Your task to perform on an android device: turn on translation in the chrome app Image 0: 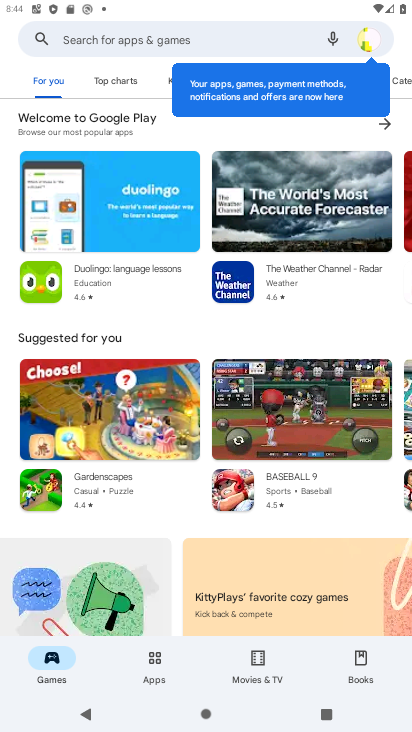
Step 0: press home button
Your task to perform on an android device: turn on translation in the chrome app Image 1: 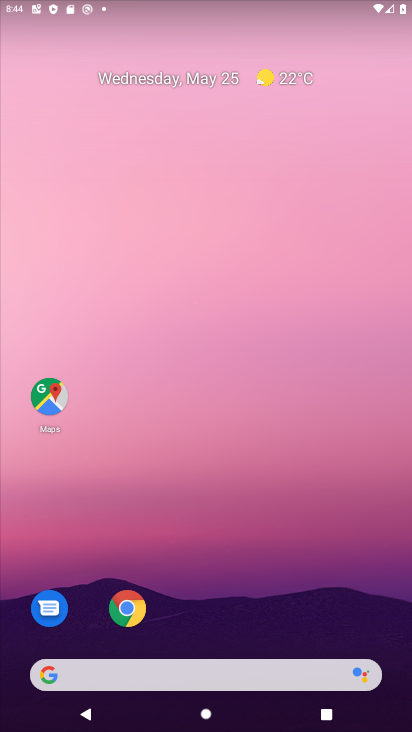
Step 1: click (125, 607)
Your task to perform on an android device: turn on translation in the chrome app Image 2: 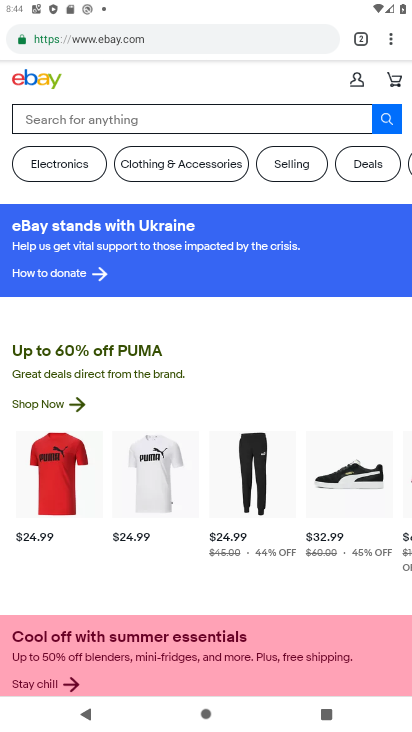
Step 2: click (390, 38)
Your task to perform on an android device: turn on translation in the chrome app Image 3: 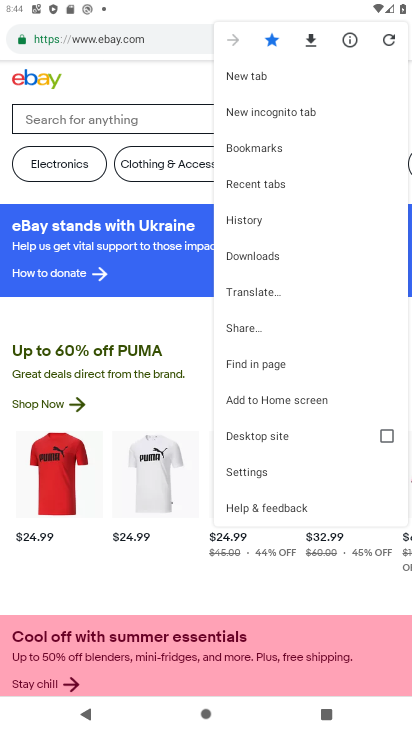
Step 3: click (250, 475)
Your task to perform on an android device: turn on translation in the chrome app Image 4: 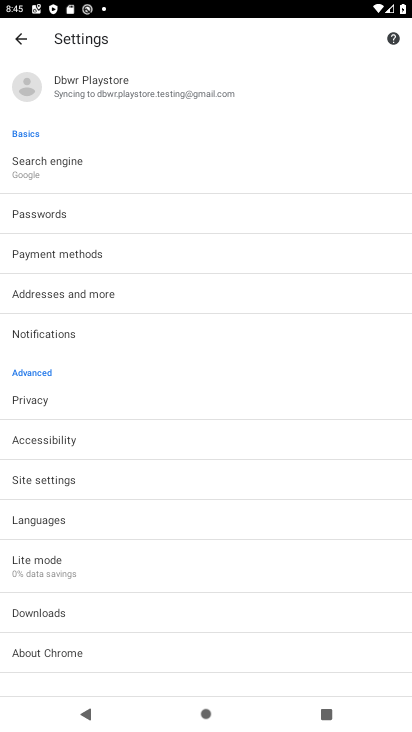
Step 4: click (51, 528)
Your task to perform on an android device: turn on translation in the chrome app Image 5: 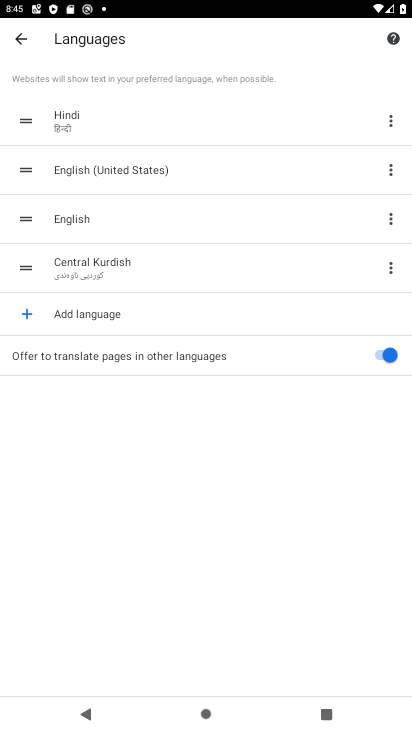
Step 5: task complete